Your task to perform on an android device: Open the map Image 0: 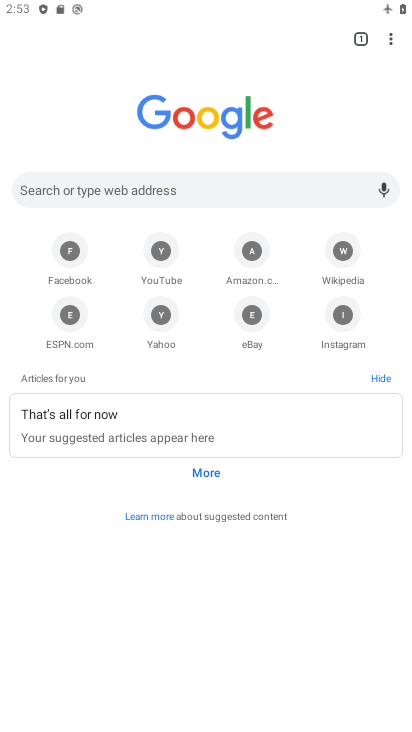
Step 0: press home button
Your task to perform on an android device: Open the map Image 1: 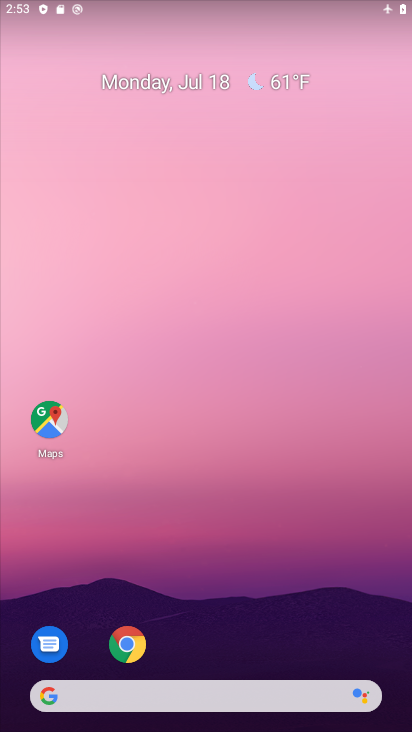
Step 1: click (47, 429)
Your task to perform on an android device: Open the map Image 2: 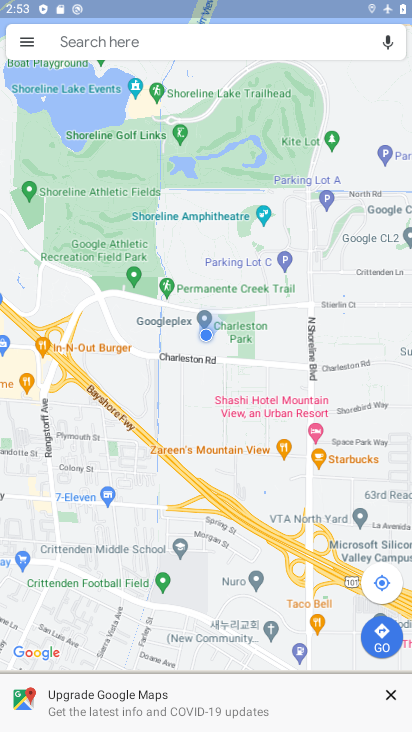
Step 2: task complete